Your task to perform on an android device: turn on data saver in the chrome app Image 0: 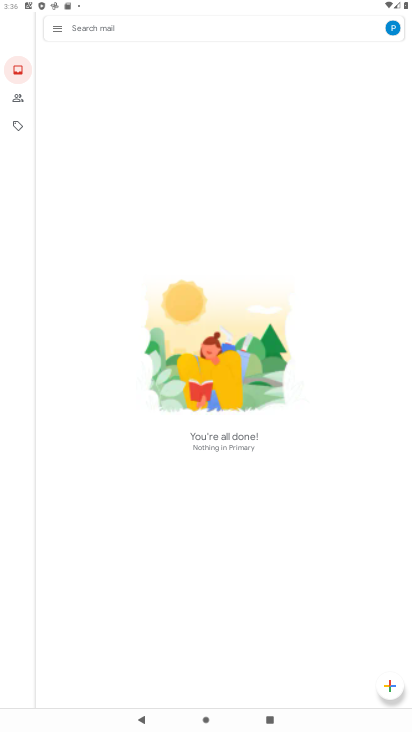
Step 0: press home button
Your task to perform on an android device: turn on data saver in the chrome app Image 1: 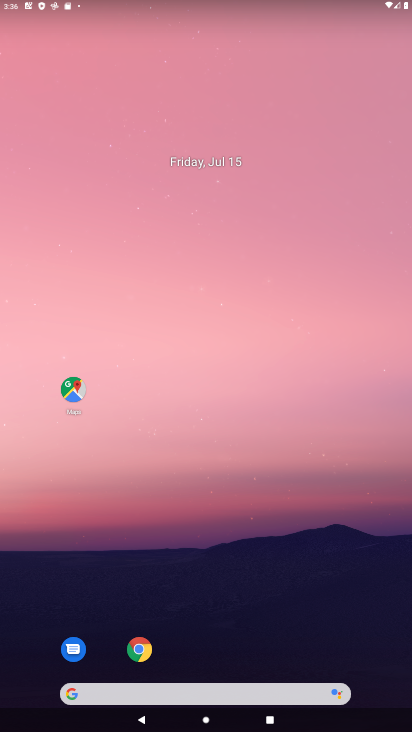
Step 1: drag from (321, 623) to (309, 115)
Your task to perform on an android device: turn on data saver in the chrome app Image 2: 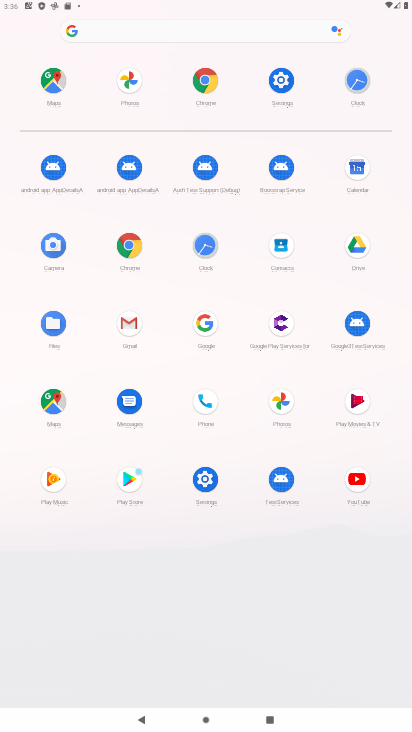
Step 2: click (133, 245)
Your task to perform on an android device: turn on data saver in the chrome app Image 3: 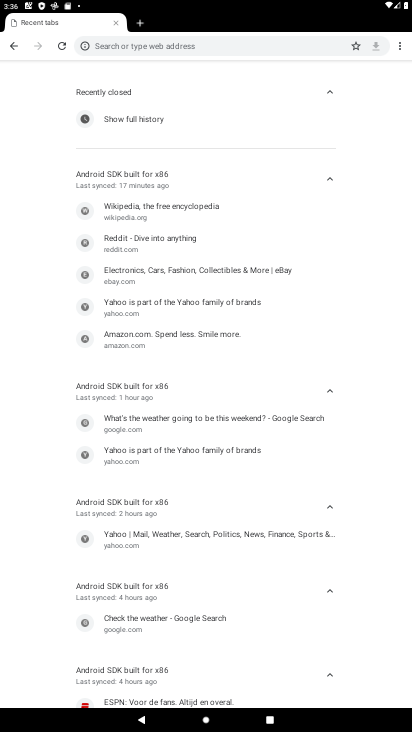
Step 3: drag from (404, 42) to (309, 214)
Your task to perform on an android device: turn on data saver in the chrome app Image 4: 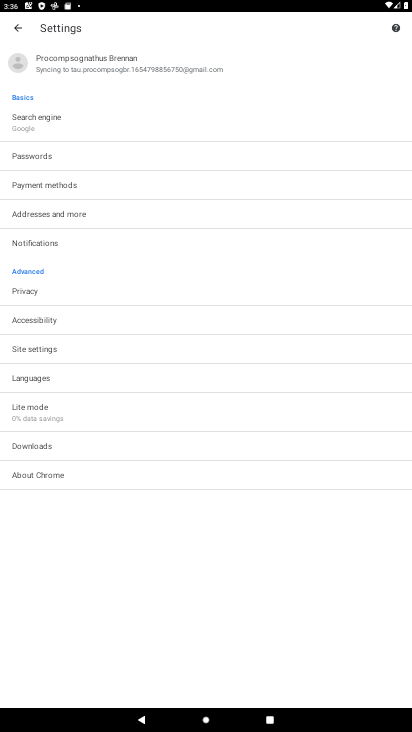
Step 4: click (31, 417)
Your task to perform on an android device: turn on data saver in the chrome app Image 5: 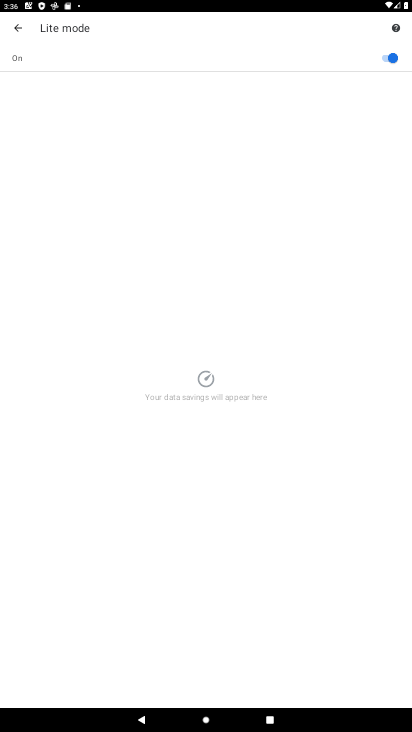
Step 5: task complete